Your task to perform on an android device: Open Reddit.com Image 0: 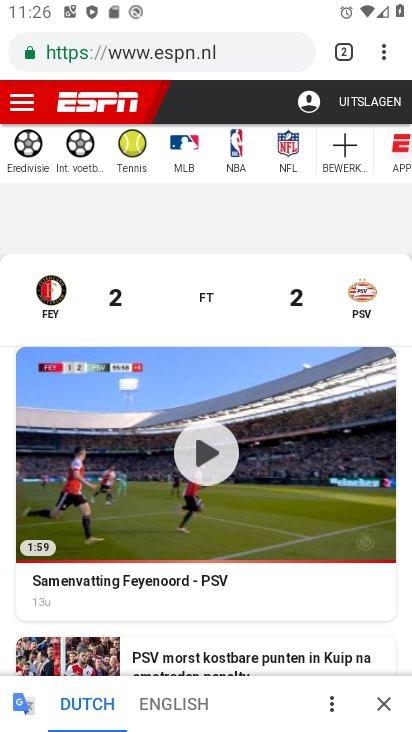
Step 0: press home button
Your task to perform on an android device: Open Reddit.com Image 1: 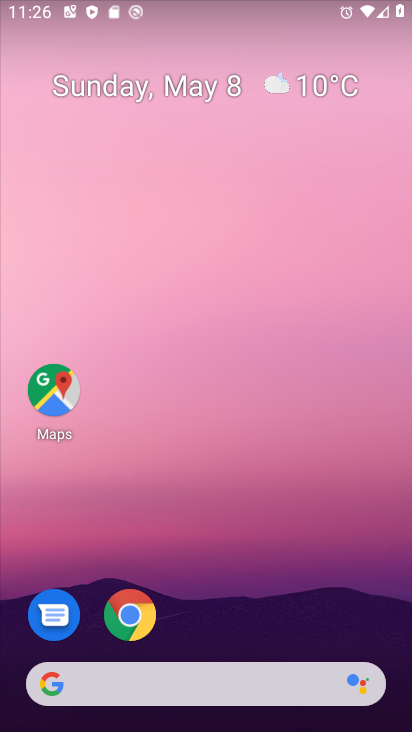
Step 1: drag from (241, 708) to (249, 250)
Your task to perform on an android device: Open Reddit.com Image 2: 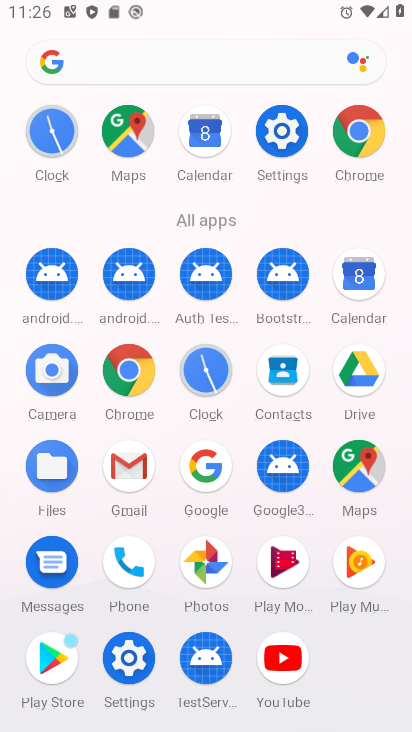
Step 2: click (365, 145)
Your task to perform on an android device: Open Reddit.com Image 3: 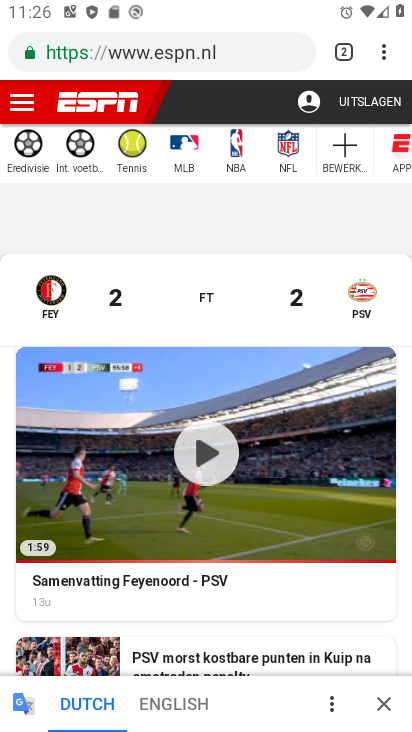
Step 3: click (332, 54)
Your task to perform on an android device: Open Reddit.com Image 4: 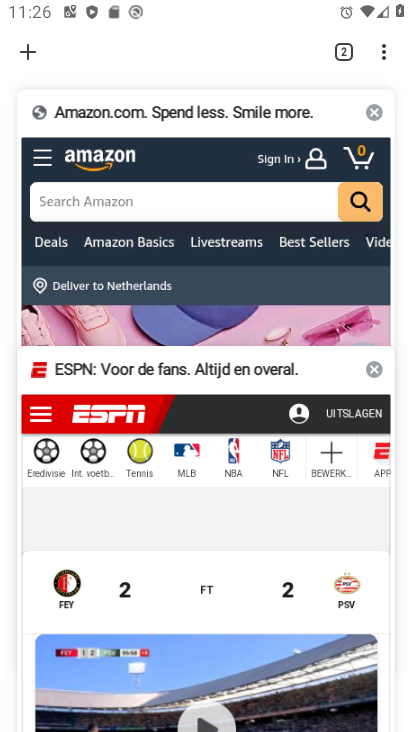
Step 4: click (21, 51)
Your task to perform on an android device: Open Reddit.com Image 5: 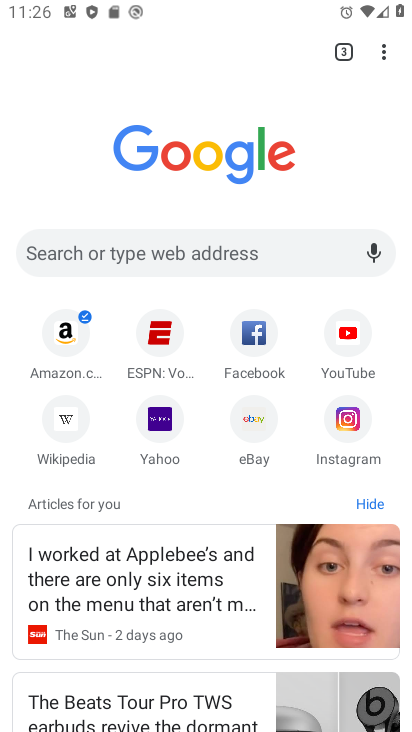
Step 5: click (117, 254)
Your task to perform on an android device: Open Reddit.com Image 6: 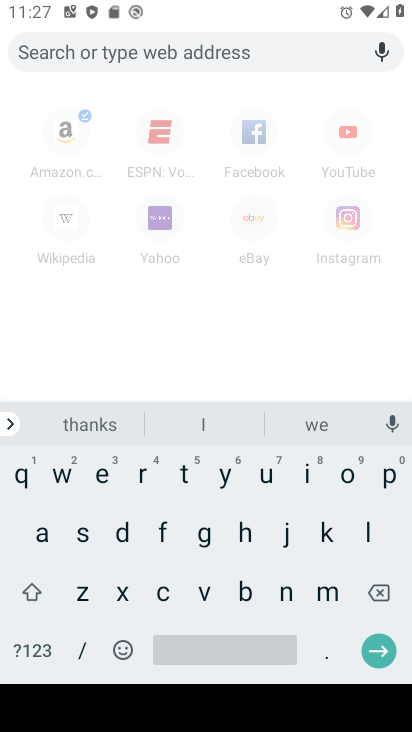
Step 6: click (138, 472)
Your task to perform on an android device: Open Reddit.com Image 7: 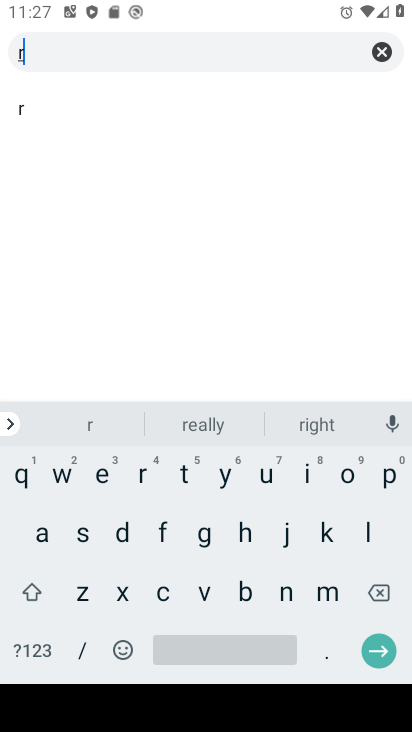
Step 7: click (101, 481)
Your task to perform on an android device: Open Reddit.com Image 8: 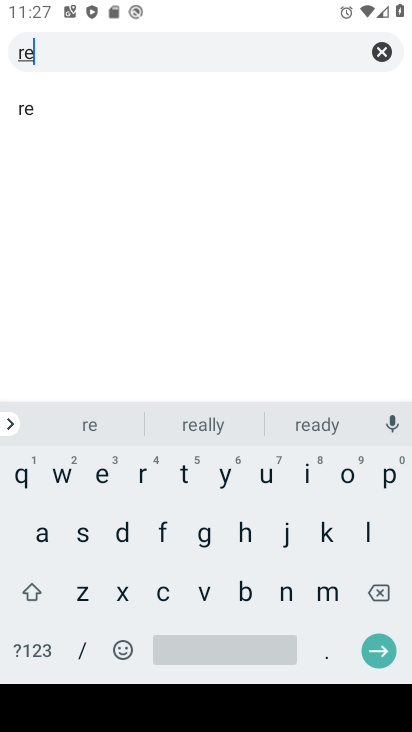
Step 8: click (119, 531)
Your task to perform on an android device: Open Reddit.com Image 9: 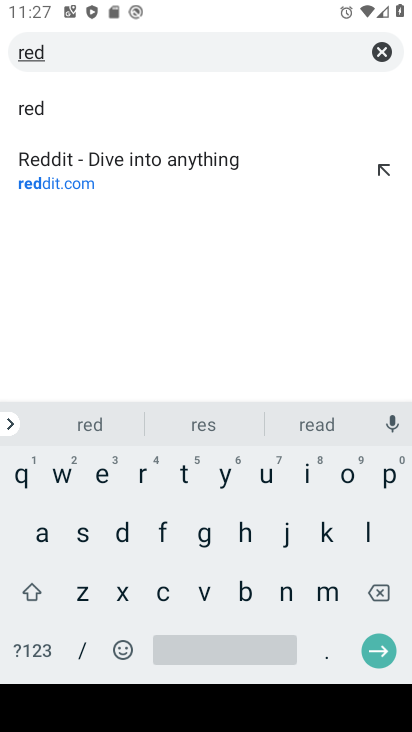
Step 9: click (129, 191)
Your task to perform on an android device: Open Reddit.com Image 10: 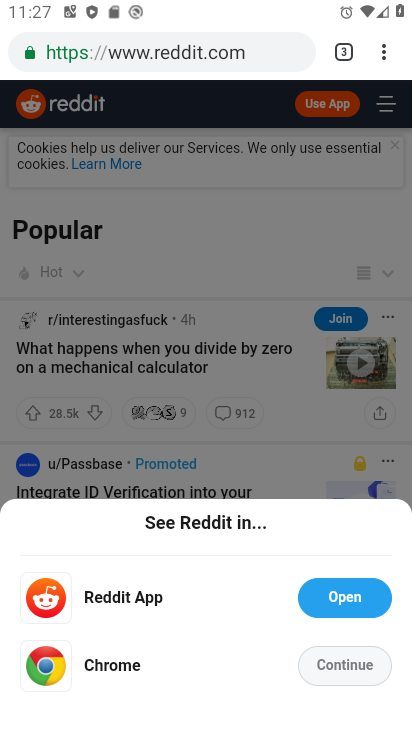
Step 10: click (326, 674)
Your task to perform on an android device: Open Reddit.com Image 11: 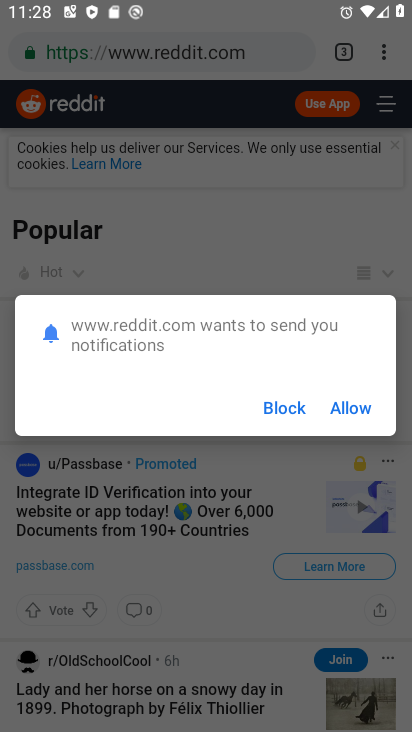
Step 11: click (296, 404)
Your task to perform on an android device: Open Reddit.com Image 12: 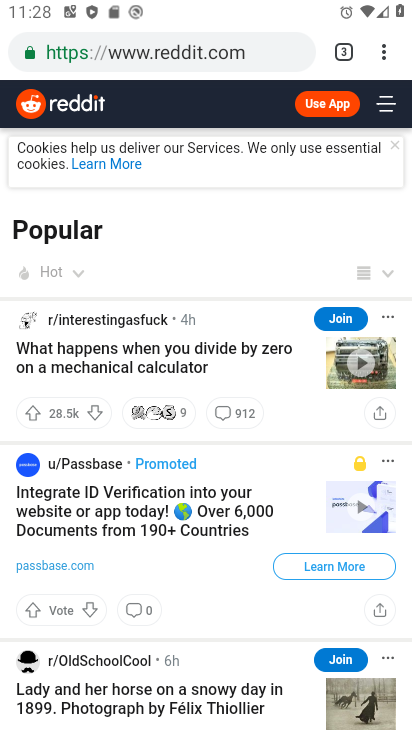
Step 12: task complete